Your task to perform on an android device: Go to Amazon Image 0: 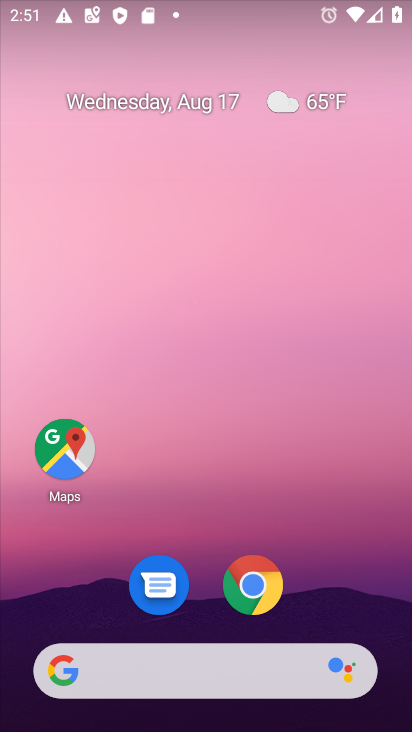
Step 0: click (261, 583)
Your task to perform on an android device: Go to Amazon Image 1: 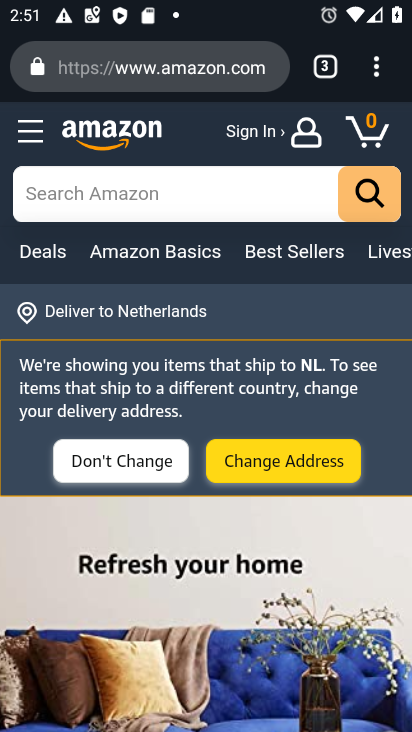
Step 1: task complete